Your task to perform on an android device: turn notification dots on Image 0: 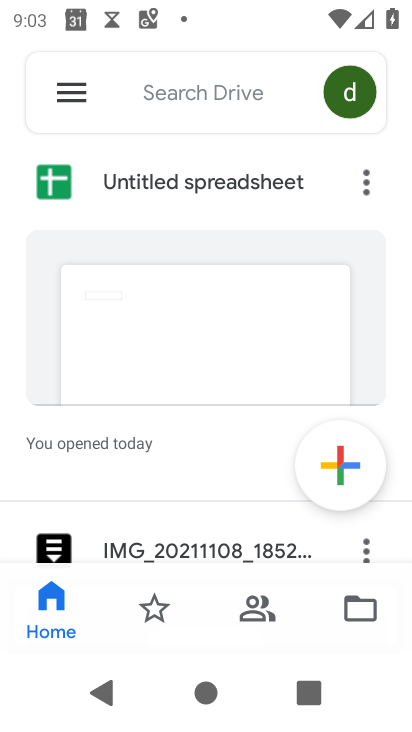
Step 0: press home button
Your task to perform on an android device: turn notification dots on Image 1: 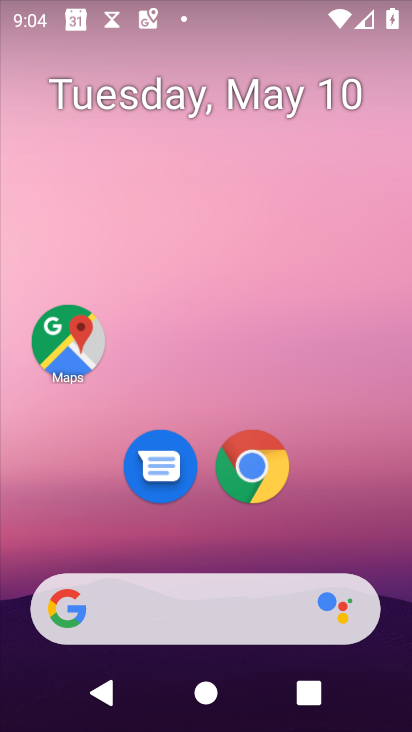
Step 1: drag from (320, 552) to (275, 104)
Your task to perform on an android device: turn notification dots on Image 2: 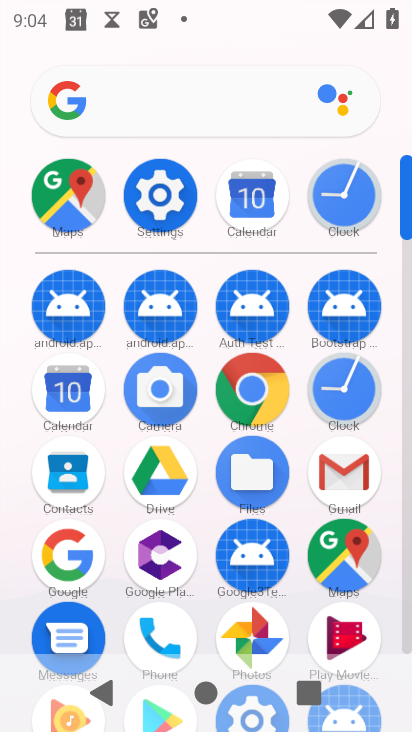
Step 2: click (154, 183)
Your task to perform on an android device: turn notification dots on Image 3: 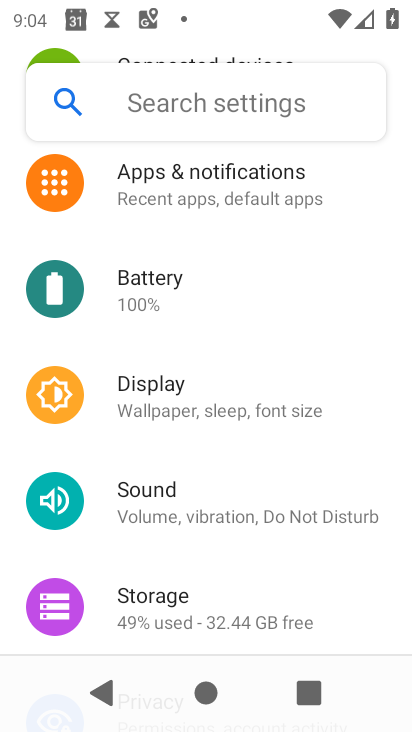
Step 3: click (199, 198)
Your task to perform on an android device: turn notification dots on Image 4: 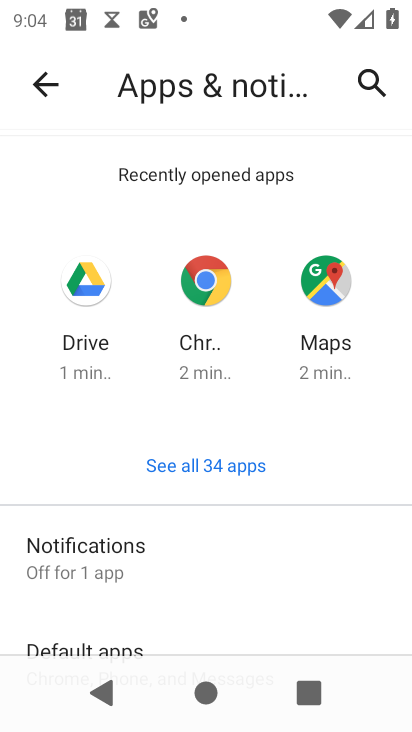
Step 4: click (194, 563)
Your task to perform on an android device: turn notification dots on Image 5: 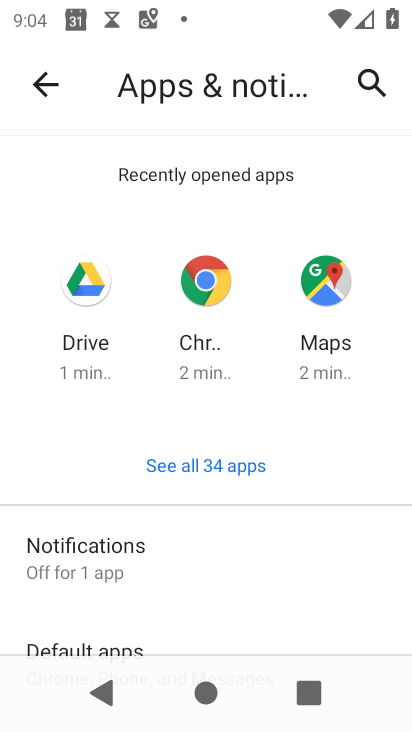
Step 5: click (194, 552)
Your task to perform on an android device: turn notification dots on Image 6: 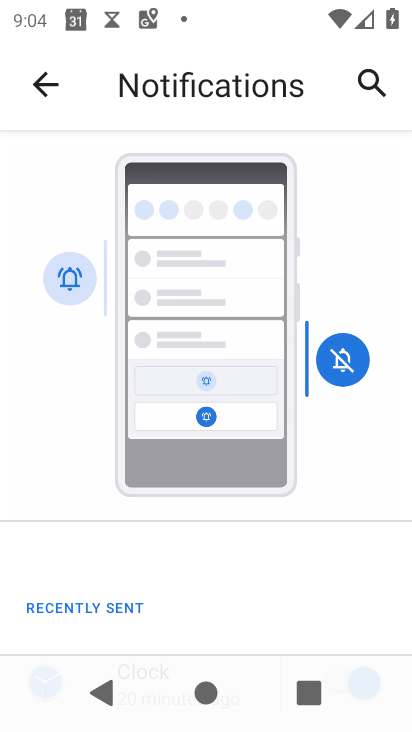
Step 6: drag from (174, 584) to (194, 233)
Your task to perform on an android device: turn notification dots on Image 7: 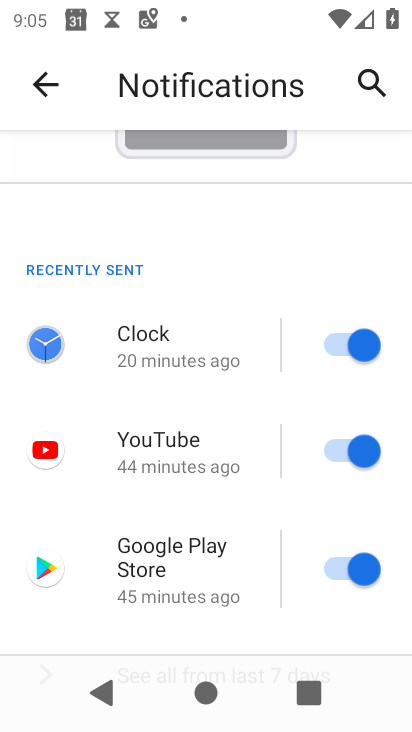
Step 7: drag from (149, 551) to (171, 365)
Your task to perform on an android device: turn notification dots on Image 8: 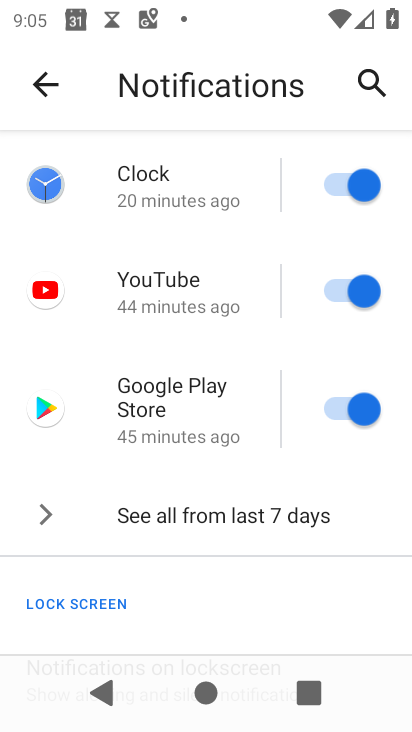
Step 8: drag from (140, 586) to (162, 308)
Your task to perform on an android device: turn notification dots on Image 9: 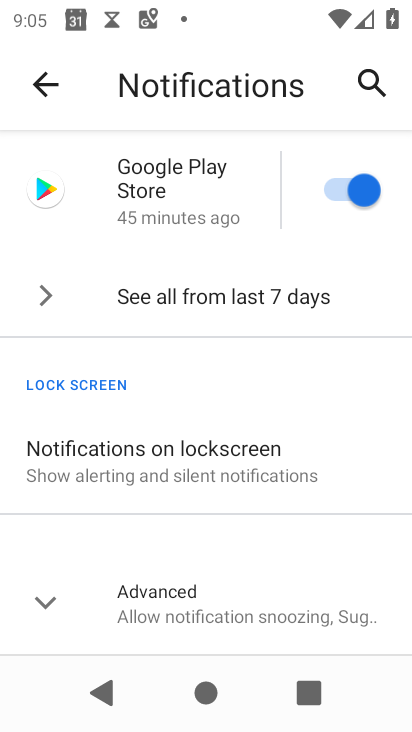
Step 9: click (204, 581)
Your task to perform on an android device: turn notification dots on Image 10: 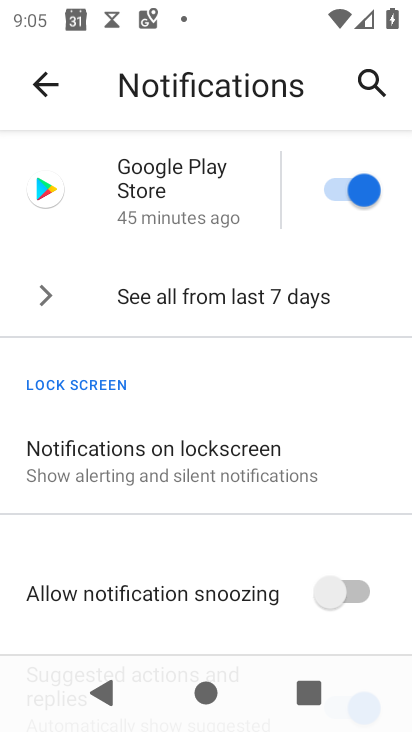
Step 10: drag from (228, 627) to (272, 423)
Your task to perform on an android device: turn notification dots on Image 11: 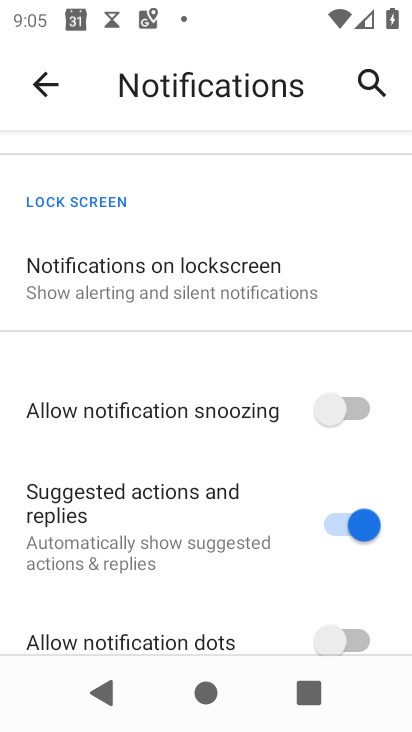
Step 11: drag from (186, 568) to (181, 410)
Your task to perform on an android device: turn notification dots on Image 12: 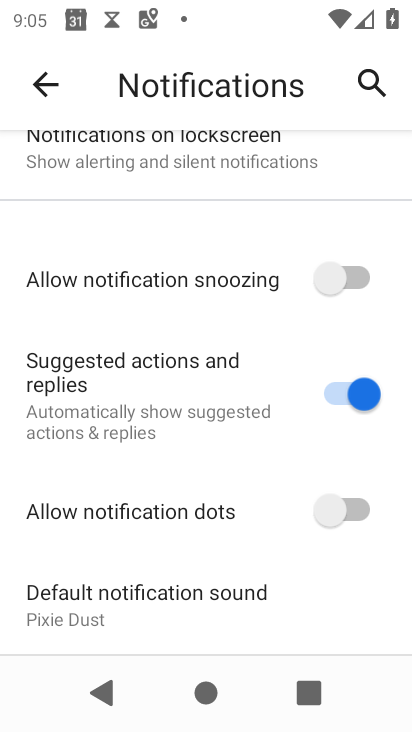
Step 12: click (329, 506)
Your task to perform on an android device: turn notification dots on Image 13: 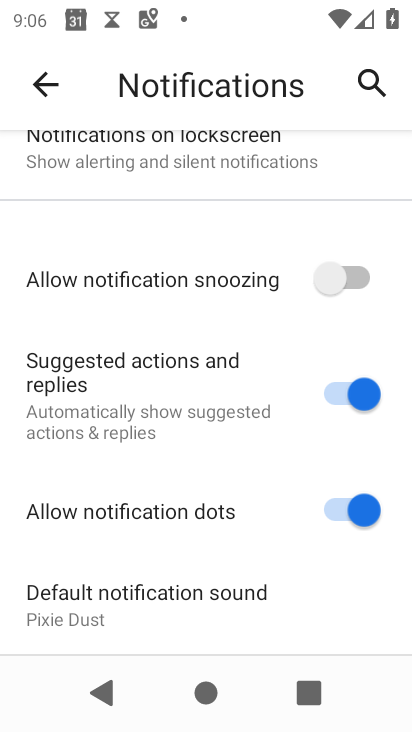
Step 13: task complete